Your task to perform on an android device: open a bookmark in the chrome app Image 0: 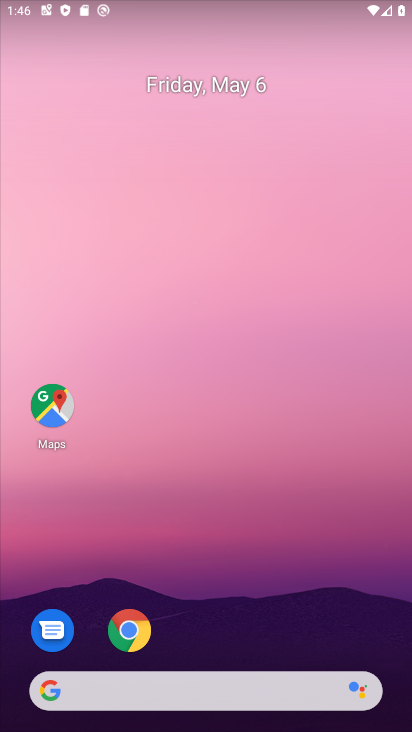
Step 0: click (126, 636)
Your task to perform on an android device: open a bookmark in the chrome app Image 1: 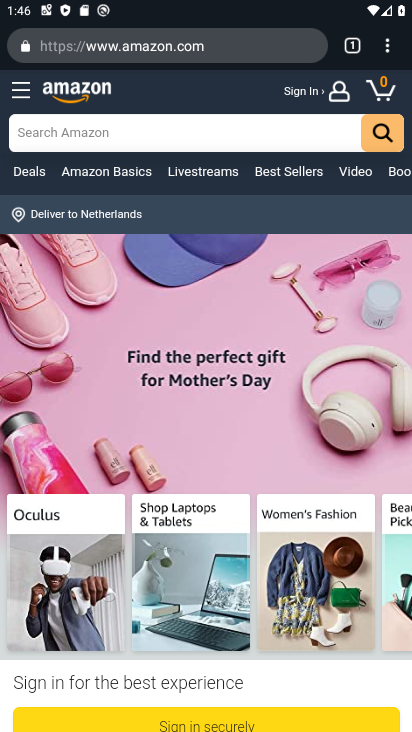
Step 1: drag from (390, 41) to (307, 171)
Your task to perform on an android device: open a bookmark in the chrome app Image 2: 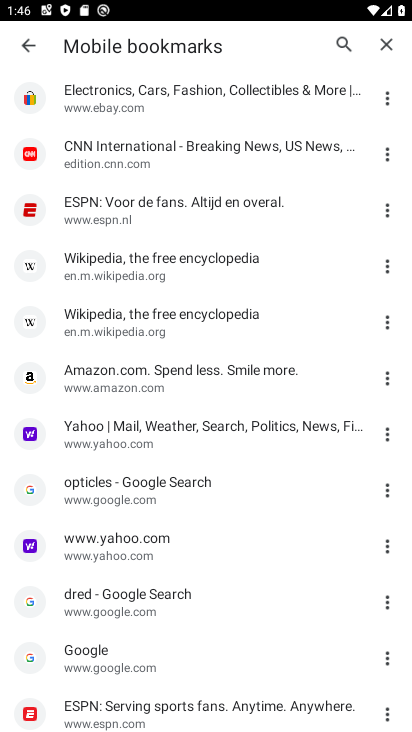
Step 2: click (212, 161)
Your task to perform on an android device: open a bookmark in the chrome app Image 3: 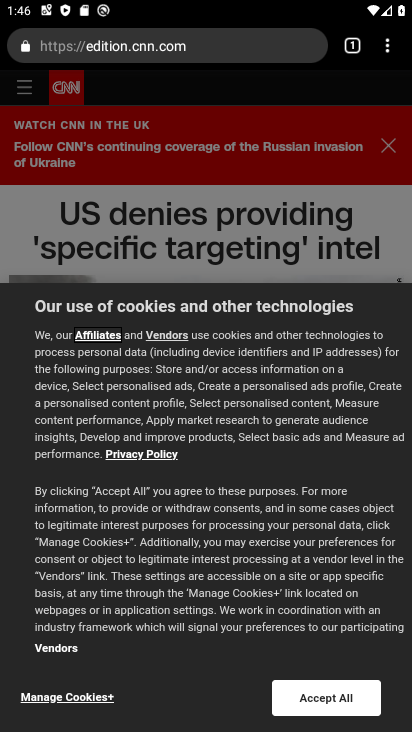
Step 3: task complete